Your task to perform on an android device: allow notifications from all sites in the chrome app Image 0: 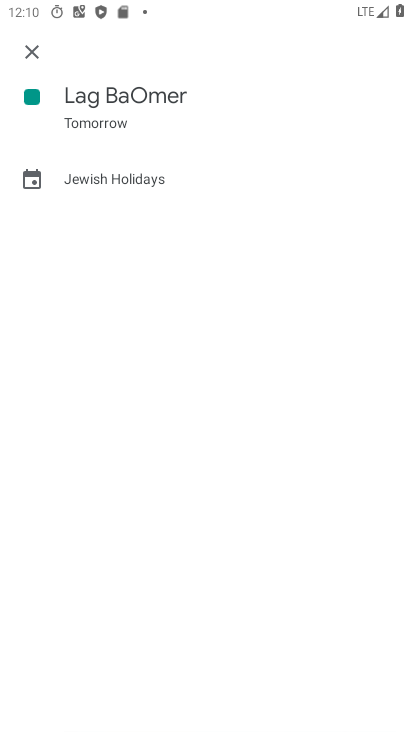
Step 0: press home button
Your task to perform on an android device: allow notifications from all sites in the chrome app Image 1: 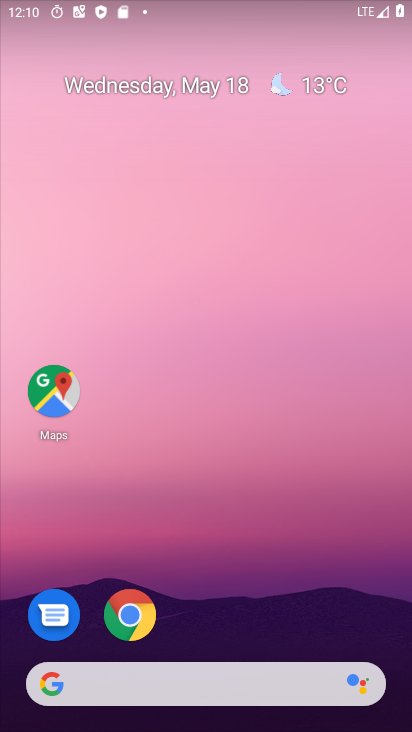
Step 1: click (127, 622)
Your task to perform on an android device: allow notifications from all sites in the chrome app Image 2: 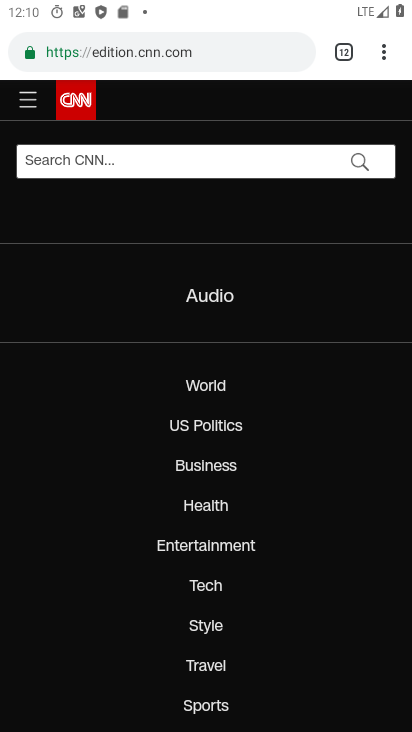
Step 2: drag from (388, 55) to (246, 639)
Your task to perform on an android device: allow notifications from all sites in the chrome app Image 3: 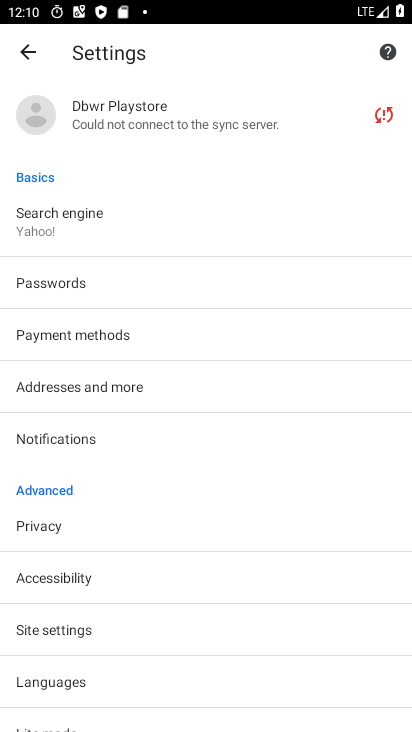
Step 3: click (60, 637)
Your task to perform on an android device: allow notifications from all sites in the chrome app Image 4: 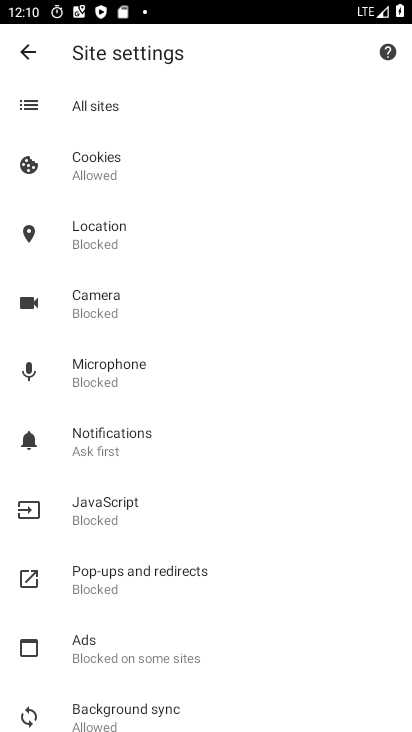
Step 4: click (113, 448)
Your task to perform on an android device: allow notifications from all sites in the chrome app Image 5: 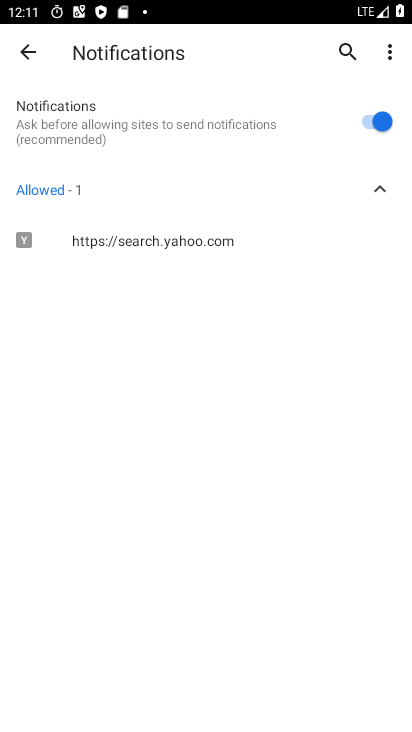
Step 5: task complete